Your task to perform on an android device: turn notification dots on Image 0: 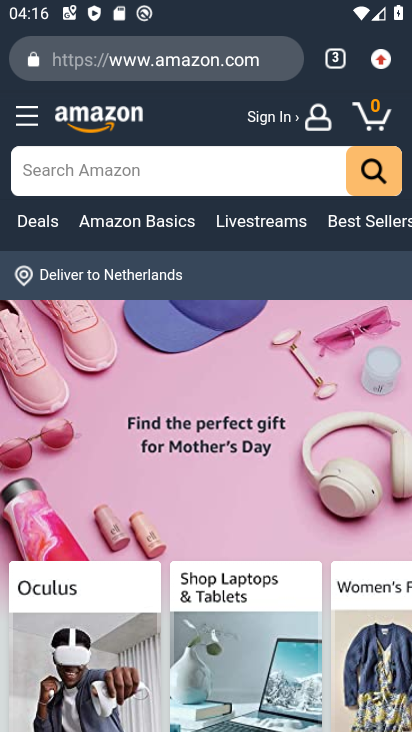
Step 0: press home button
Your task to perform on an android device: turn notification dots on Image 1: 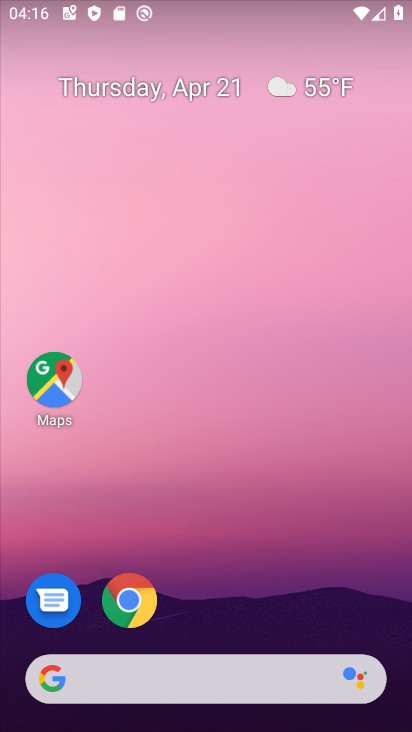
Step 1: drag from (223, 603) to (283, 120)
Your task to perform on an android device: turn notification dots on Image 2: 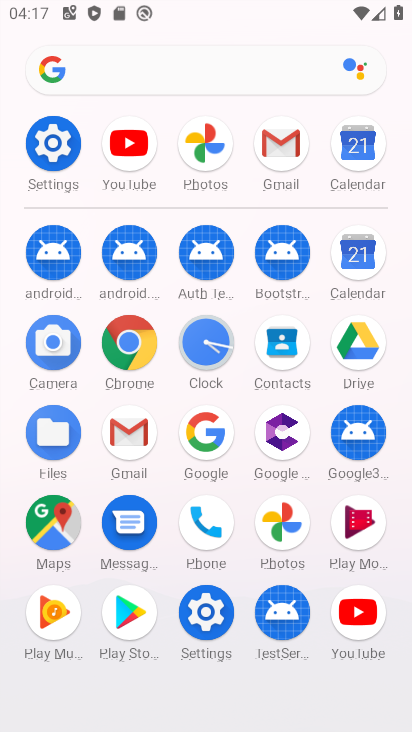
Step 2: click (204, 610)
Your task to perform on an android device: turn notification dots on Image 3: 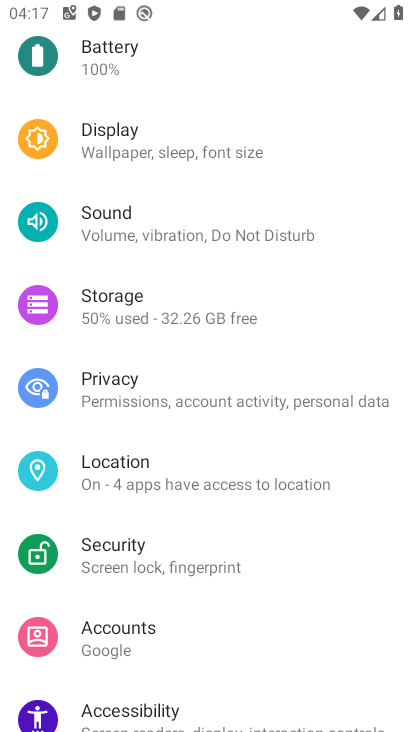
Step 3: drag from (171, 360) to (170, 511)
Your task to perform on an android device: turn notification dots on Image 4: 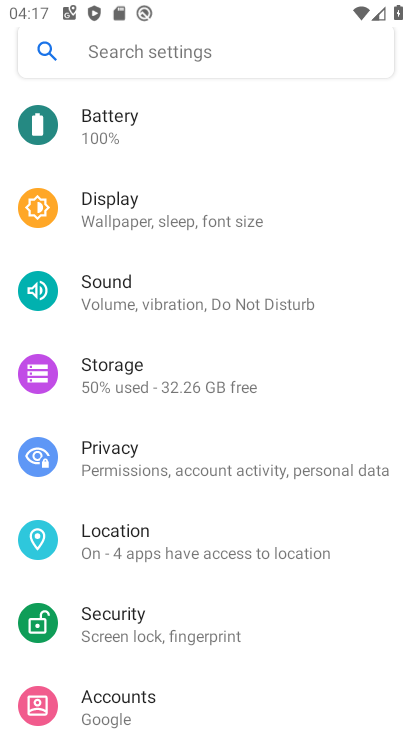
Step 4: drag from (176, 436) to (169, 554)
Your task to perform on an android device: turn notification dots on Image 5: 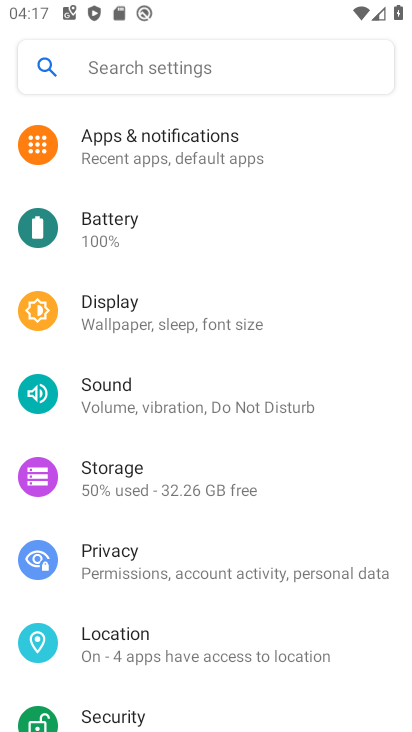
Step 5: click (191, 162)
Your task to perform on an android device: turn notification dots on Image 6: 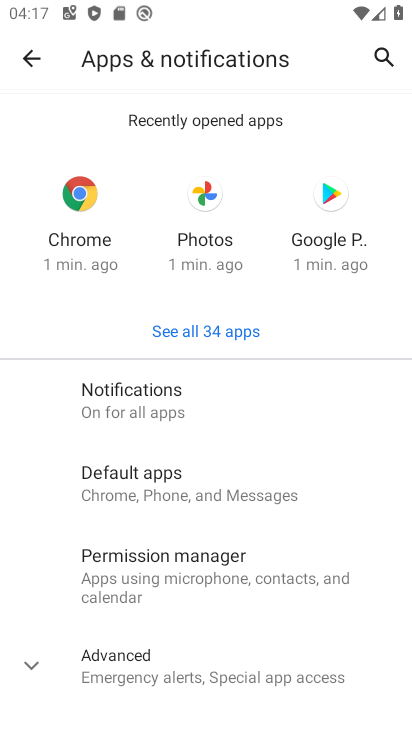
Step 6: click (192, 401)
Your task to perform on an android device: turn notification dots on Image 7: 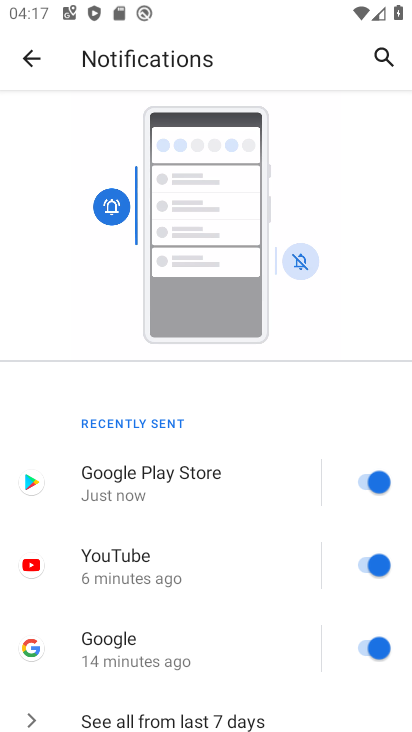
Step 7: drag from (212, 536) to (214, 250)
Your task to perform on an android device: turn notification dots on Image 8: 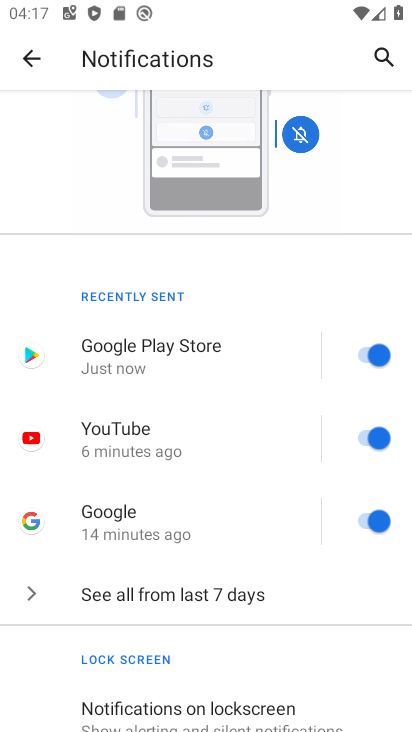
Step 8: drag from (199, 591) to (198, 289)
Your task to perform on an android device: turn notification dots on Image 9: 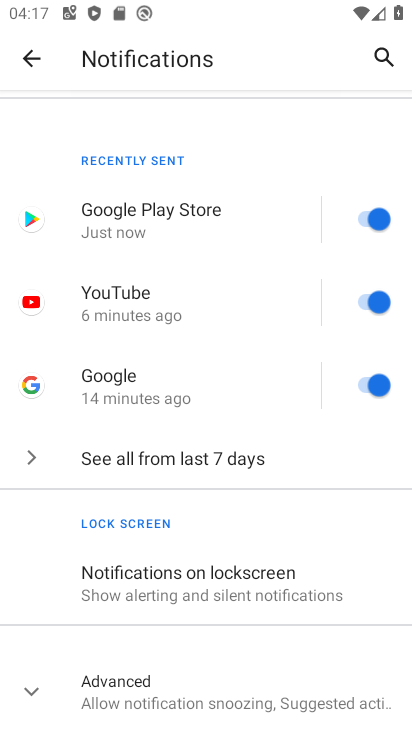
Step 9: click (186, 695)
Your task to perform on an android device: turn notification dots on Image 10: 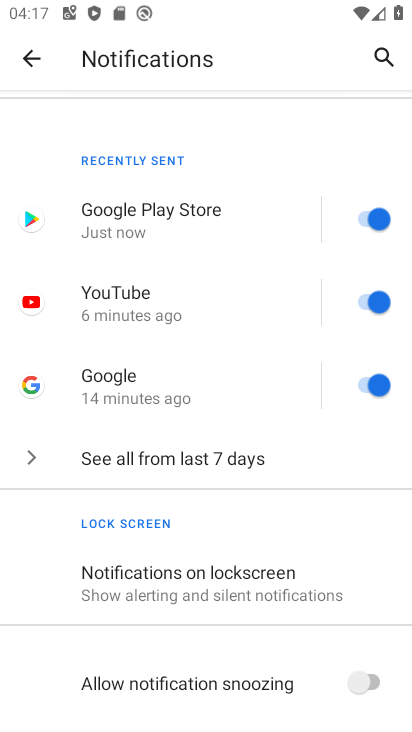
Step 10: drag from (185, 687) to (165, 429)
Your task to perform on an android device: turn notification dots on Image 11: 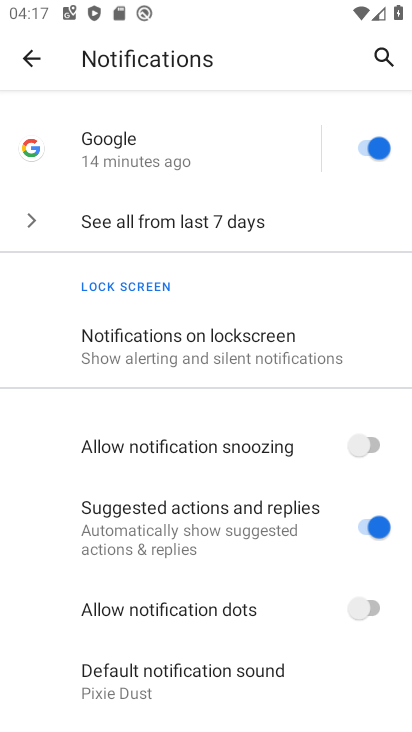
Step 11: click (360, 609)
Your task to perform on an android device: turn notification dots on Image 12: 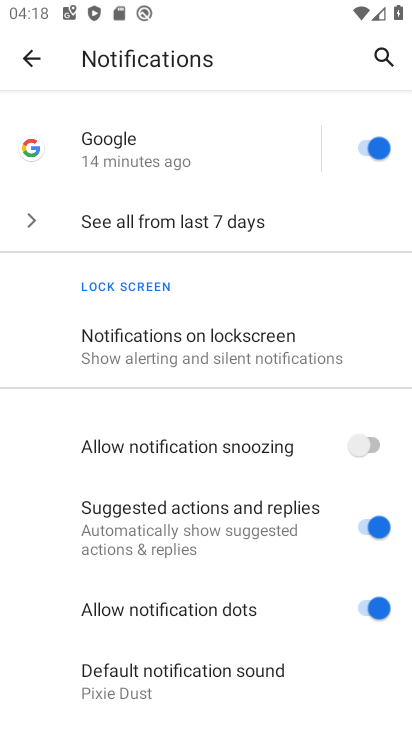
Step 12: task complete